Your task to perform on an android device: toggle location history Image 0: 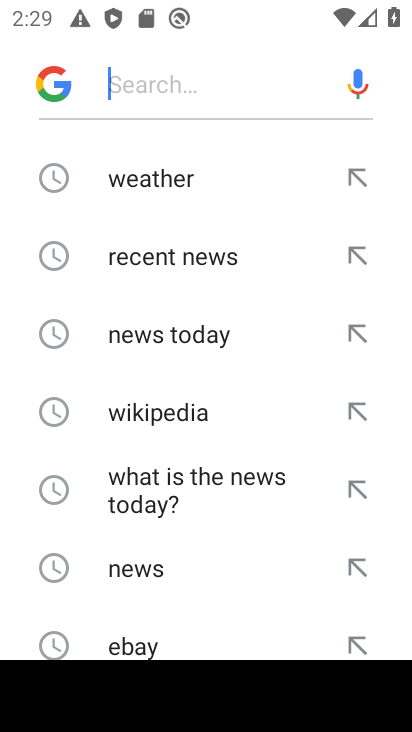
Step 0: press home button
Your task to perform on an android device: toggle location history Image 1: 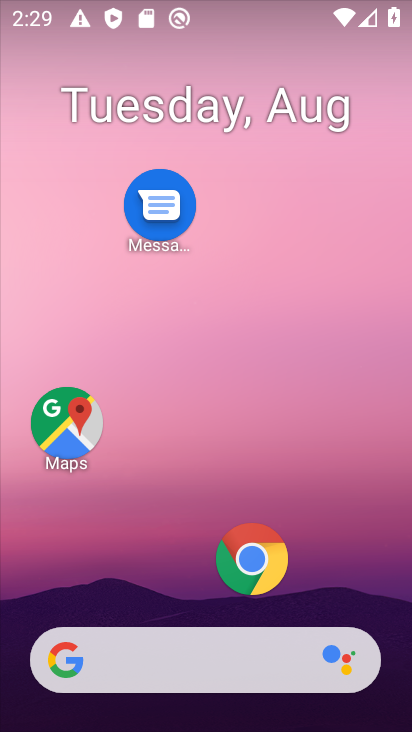
Step 1: click (64, 420)
Your task to perform on an android device: toggle location history Image 2: 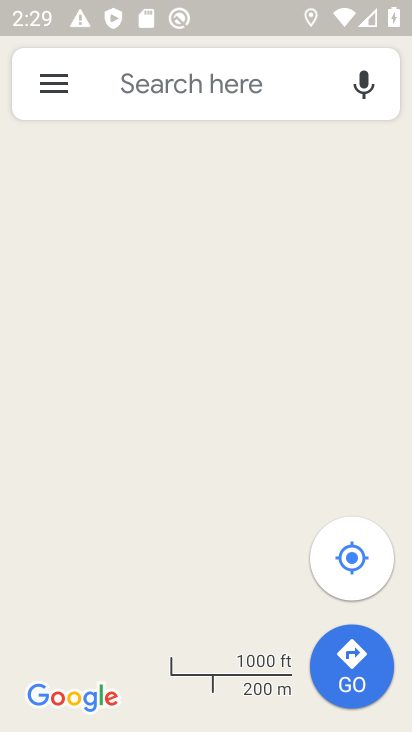
Step 2: click (55, 80)
Your task to perform on an android device: toggle location history Image 3: 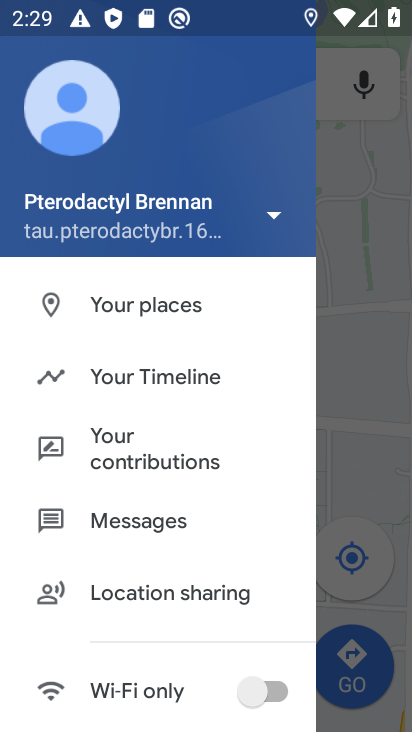
Step 3: click (161, 371)
Your task to perform on an android device: toggle location history Image 4: 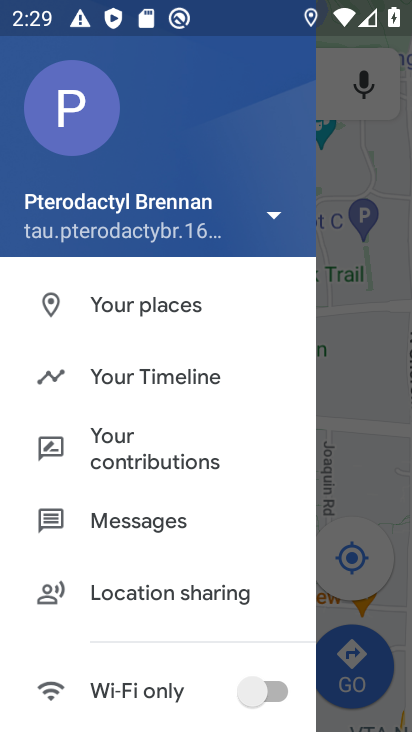
Step 4: click (144, 373)
Your task to perform on an android device: toggle location history Image 5: 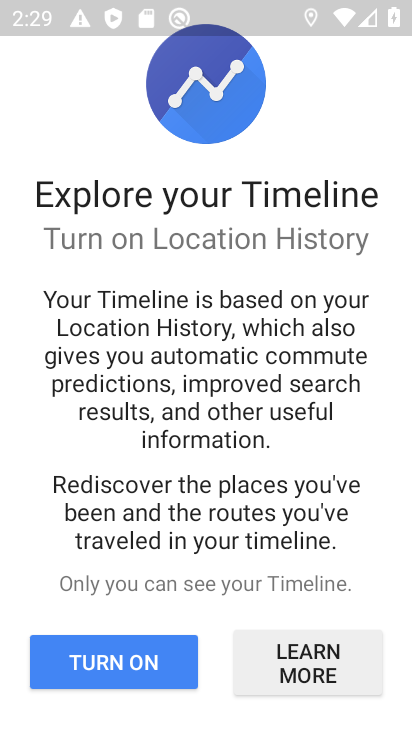
Step 5: click (142, 656)
Your task to perform on an android device: toggle location history Image 6: 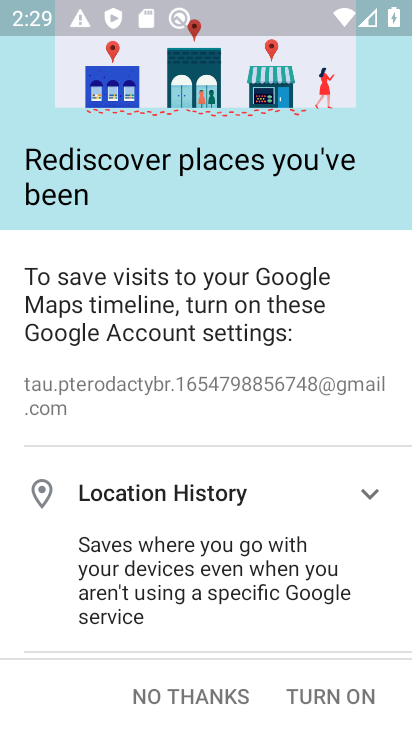
Step 6: click (334, 697)
Your task to perform on an android device: toggle location history Image 7: 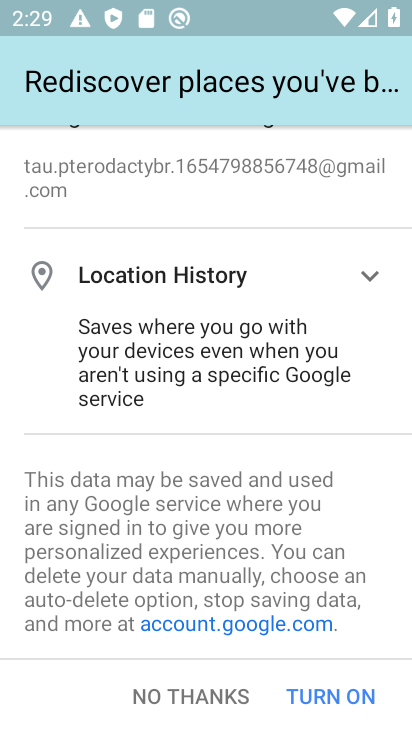
Step 7: click (334, 697)
Your task to perform on an android device: toggle location history Image 8: 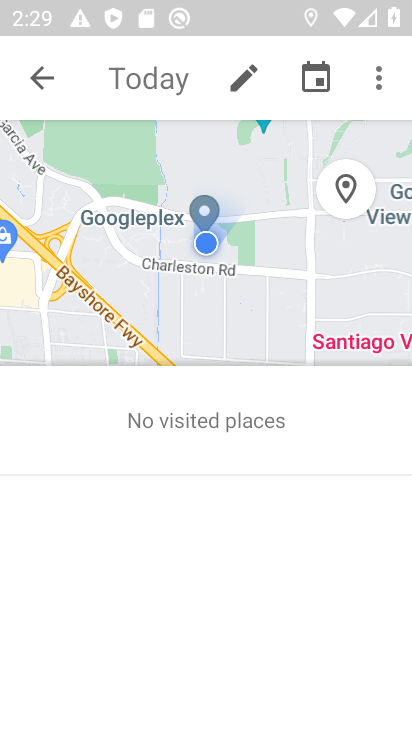
Step 8: click (377, 75)
Your task to perform on an android device: toggle location history Image 9: 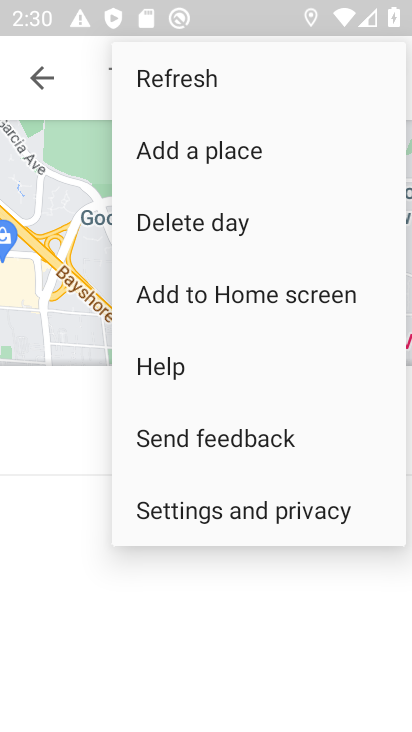
Step 9: click (254, 507)
Your task to perform on an android device: toggle location history Image 10: 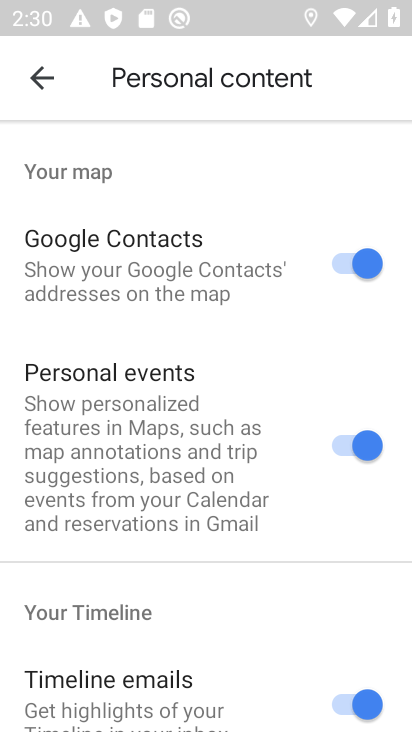
Step 10: drag from (244, 610) to (247, 194)
Your task to perform on an android device: toggle location history Image 11: 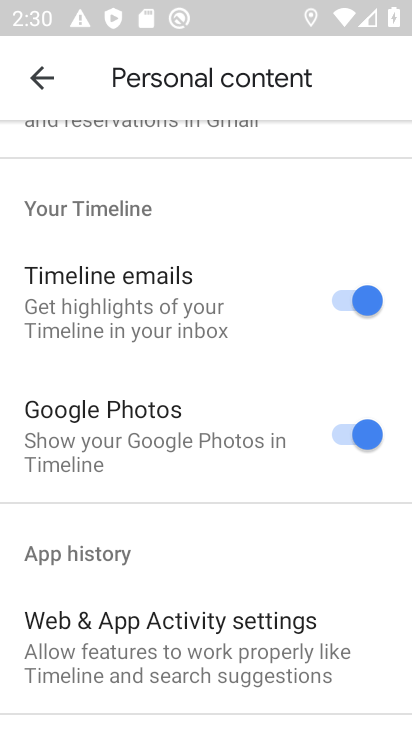
Step 11: drag from (226, 572) to (203, 282)
Your task to perform on an android device: toggle location history Image 12: 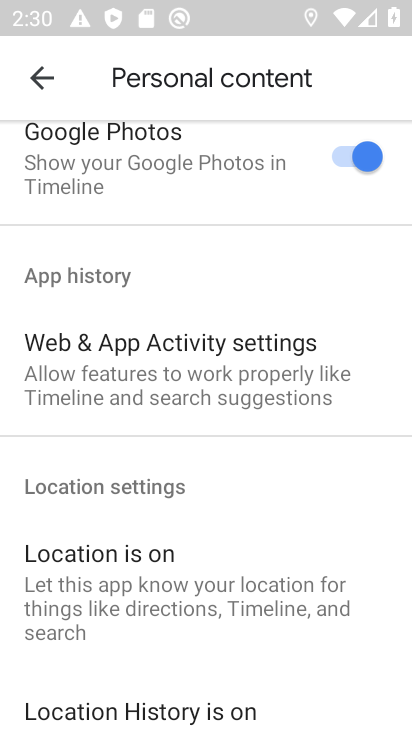
Step 12: drag from (242, 500) to (239, 270)
Your task to perform on an android device: toggle location history Image 13: 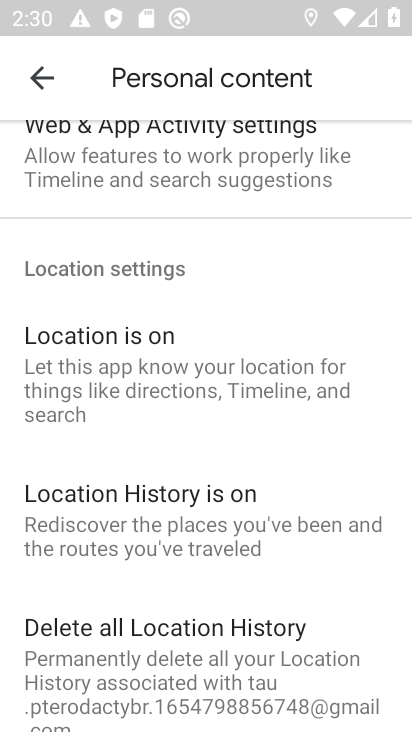
Step 13: click (119, 489)
Your task to perform on an android device: toggle location history Image 14: 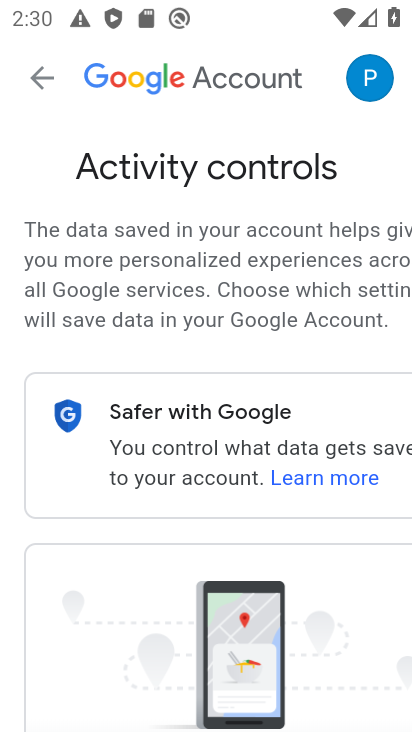
Step 14: drag from (322, 586) to (294, 361)
Your task to perform on an android device: toggle location history Image 15: 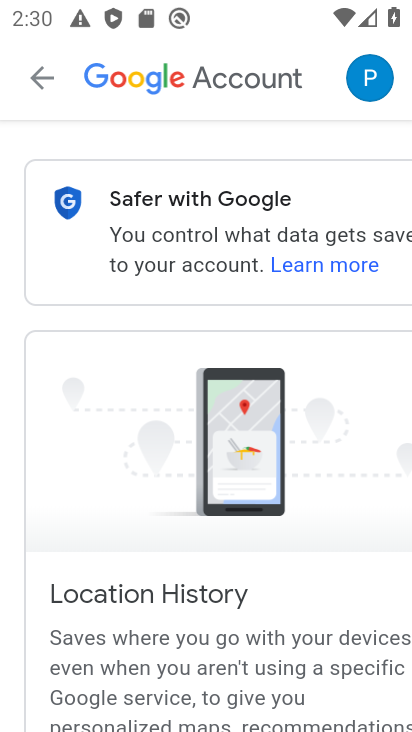
Step 15: drag from (294, 599) to (290, 311)
Your task to perform on an android device: toggle location history Image 16: 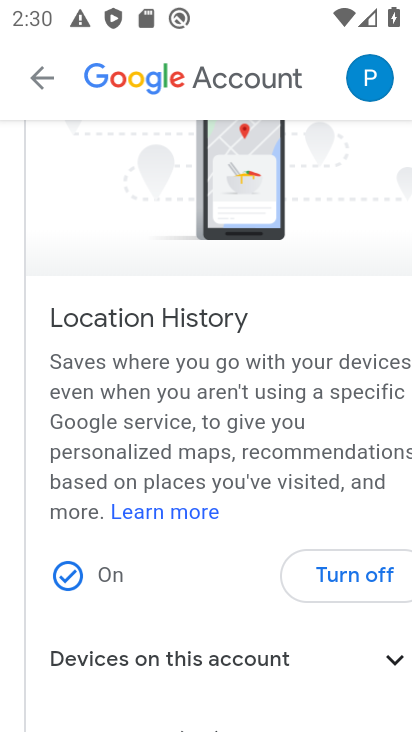
Step 16: click (338, 592)
Your task to perform on an android device: toggle location history Image 17: 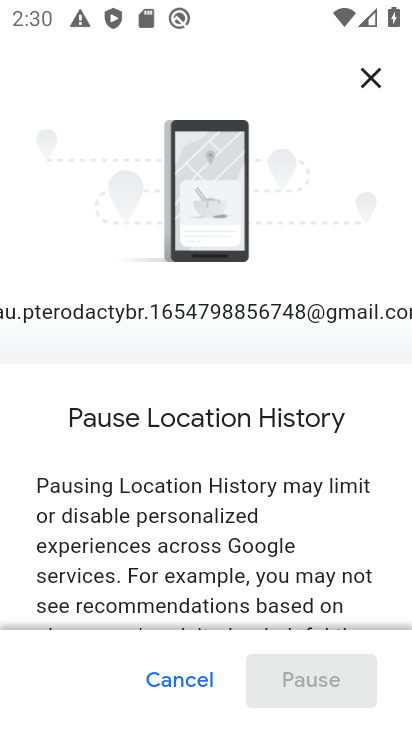
Step 17: drag from (326, 535) to (294, 301)
Your task to perform on an android device: toggle location history Image 18: 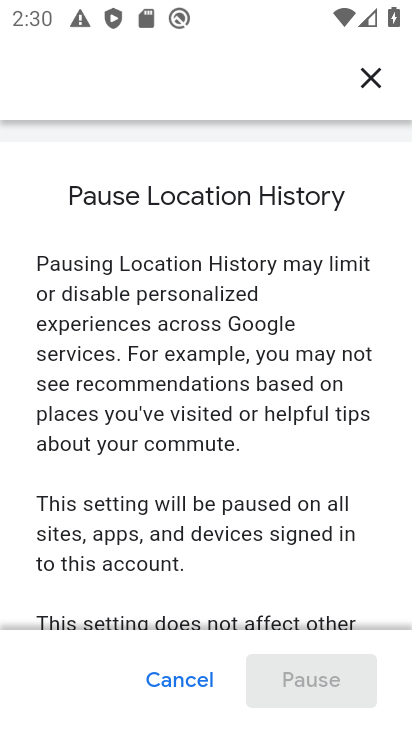
Step 18: drag from (285, 570) to (265, 347)
Your task to perform on an android device: toggle location history Image 19: 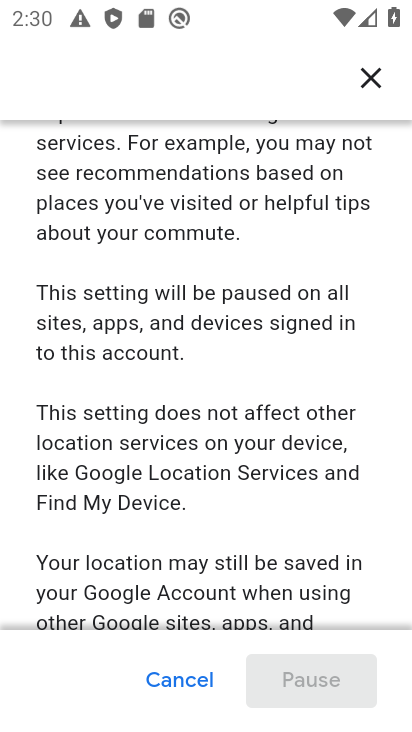
Step 19: drag from (257, 554) to (249, 274)
Your task to perform on an android device: toggle location history Image 20: 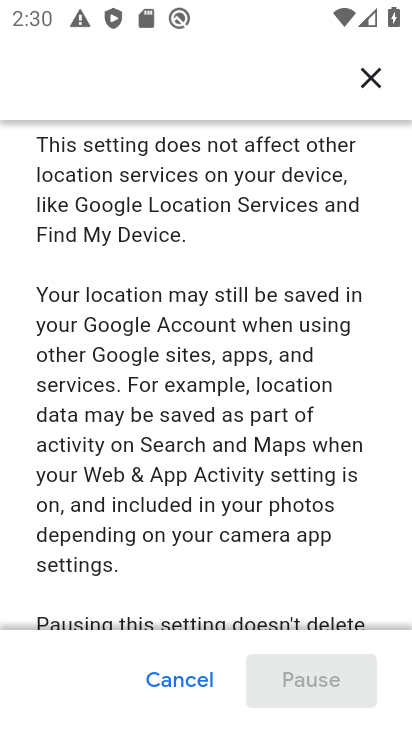
Step 20: drag from (239, 552) to (239, 305)
Your task to perform on an android device: toggle location history Image 21: 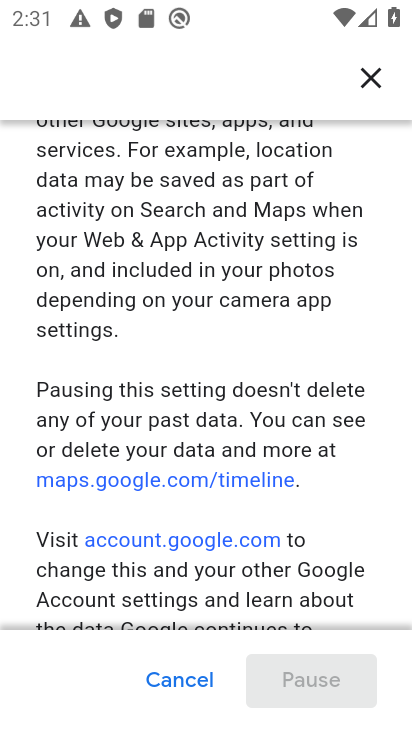
Step 21: drag from (259, 576) to (246, 265)
Your task to perform on an android device: toggle location history Image 22: 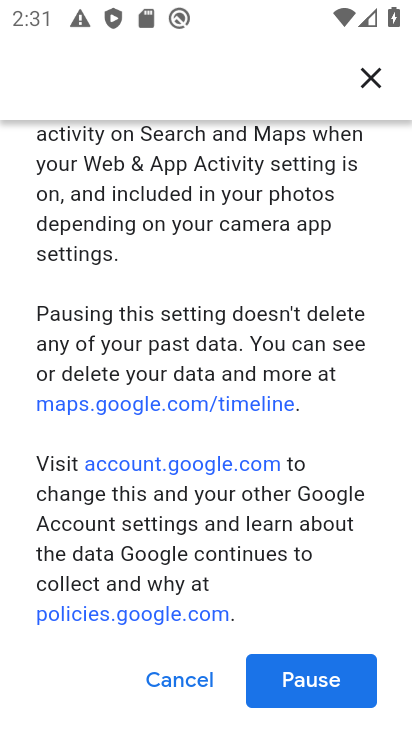
Step 22: click (312, 676)
Your task to perform on an android device: toggle location history Image 23: 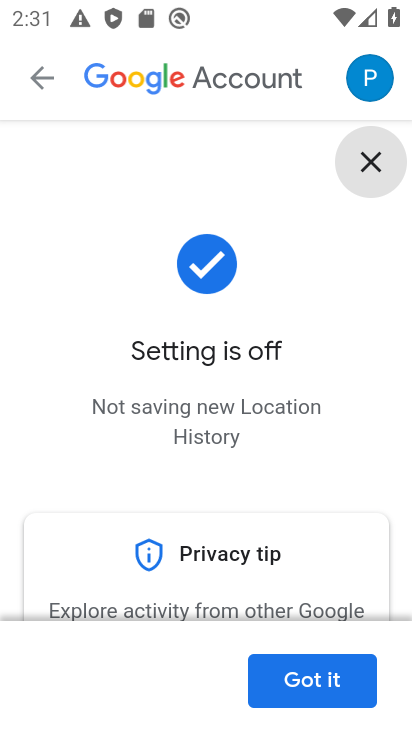
Step 23: click (308, 689)
Your task to perform on an android device: toggle location history Image 24: 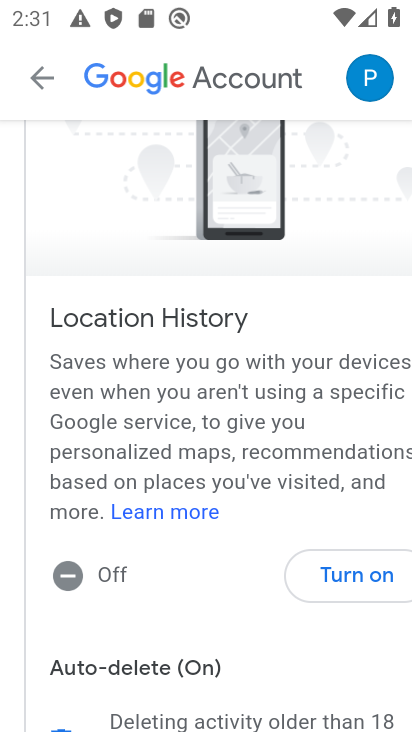
Step 24: task complete